Your task to perform on an android device: Go to display settings Image 0: 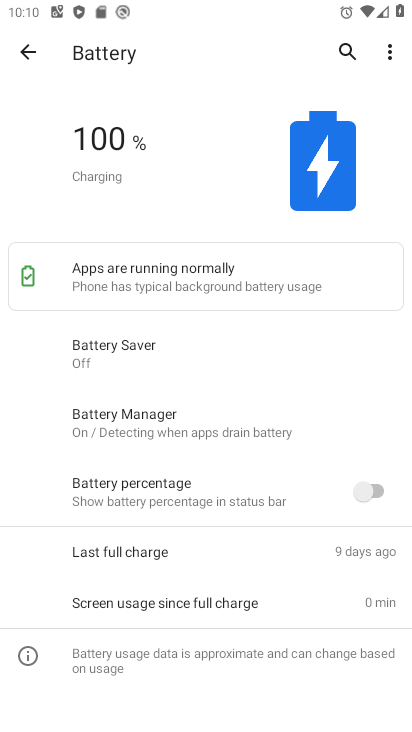
Step 0: task complete